Your task to perform on an android device: allow notifications from all sites in the chrome app Image 0: 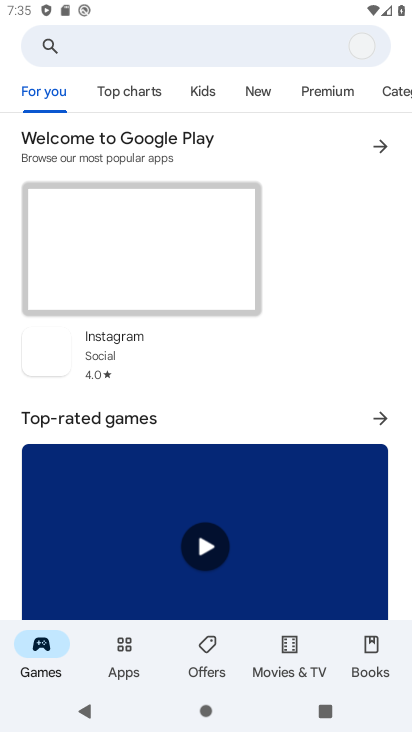
Step 0: press home button
Your task to perform on an android device: allow notifications from all sites in the chrome app Image 1: 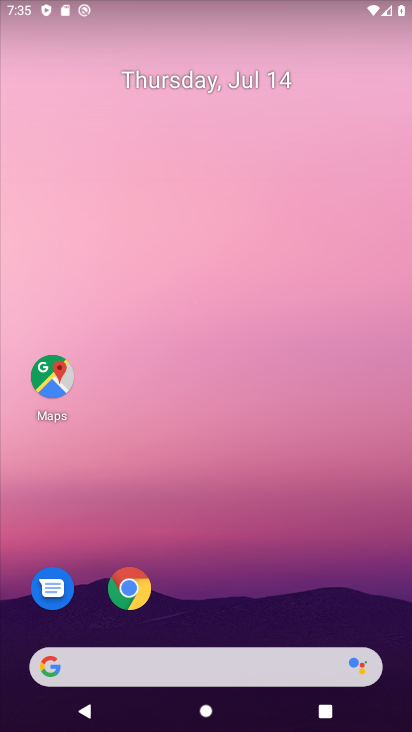
Step 1: drag from (335, 615) to (344, 171)
Your task to perform on an android device: allow notifications from all sites in the chrome app Image 2: 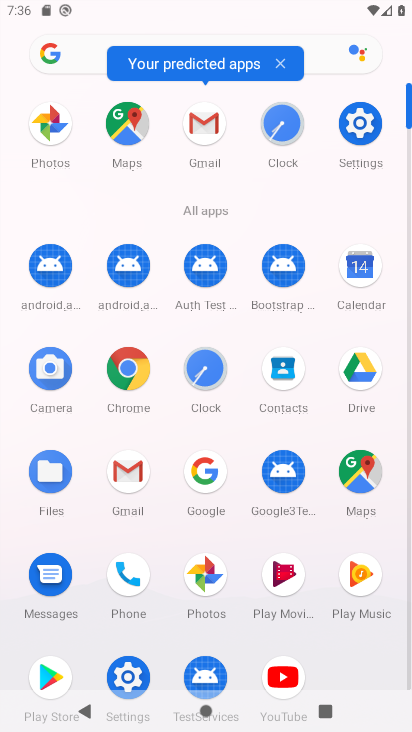
Step 2: click (134, 373)
Your task to perform on an android device: allow notifications from all sites in the chrome app Image 3: 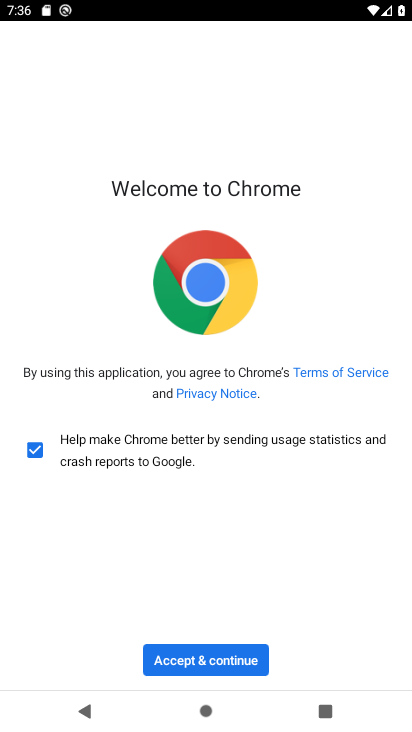
Step 3: click (180, 663)
Your task to perform on an android device: allow notifications from all sites in the chrome app Image 4: 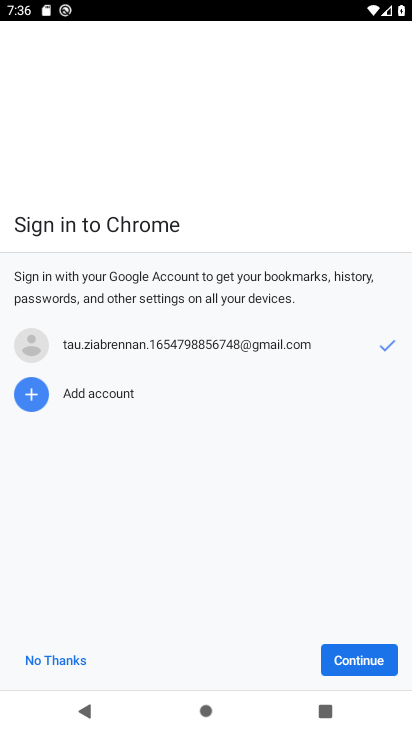
Step 4: click (342, 658)
Your task to perform on an android device: allow notifications from all sites in the chrome app Image 5: 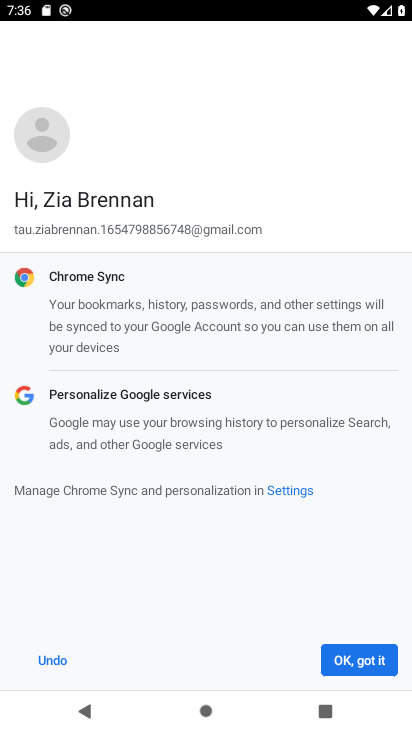
Step 5: click (342, 658)
Your task to perform on an android device: allow notifications from all sites in the chrome app Image 6: 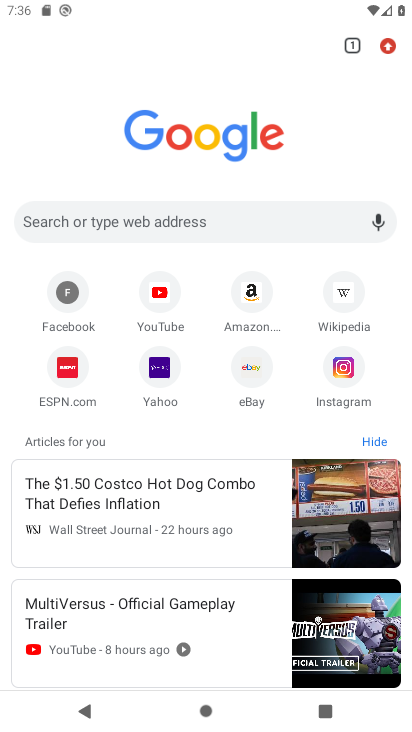
Step 6: click (389, 45)
Your task to perform on an android device: allow notifications from all sites in the chrome app Image 7: 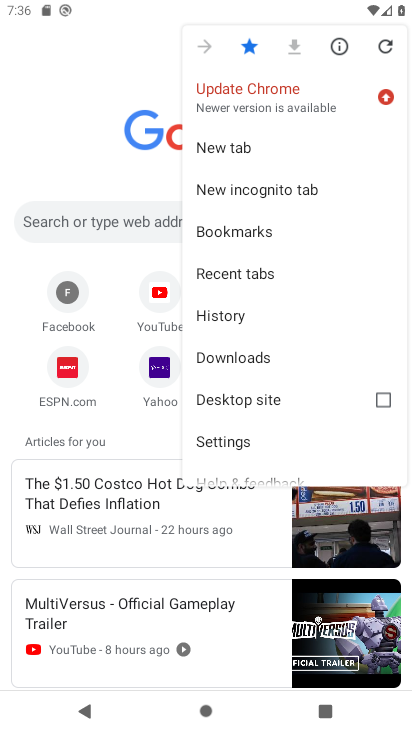
Step 7: click (251, 438)
Your task to perform on an android device: allow notifications from all sites in the chrome app Image 8: 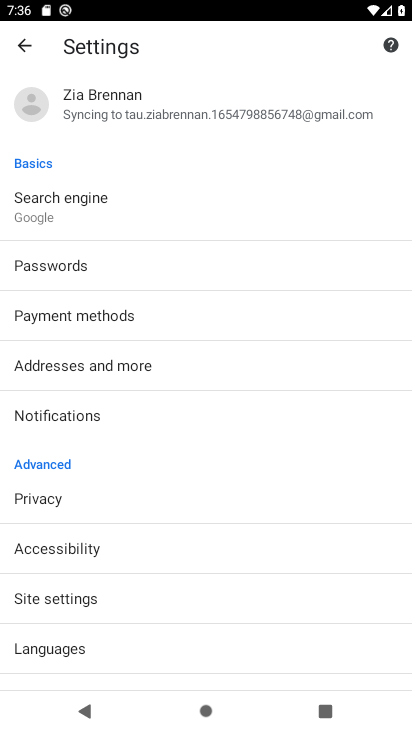
Step 8: drag from (338, 583) to (340, 498)
Your task to perform on an android device: allow notifications from all sites in the chrome app Image 9: 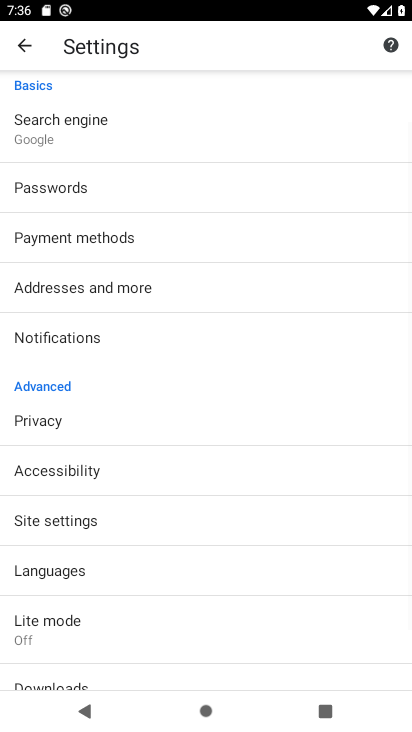
Step 9: drag from (351, 603) to (338, 422)
Your task to perform on an android device: allow notifications from all sites in the chrome app Image 10: 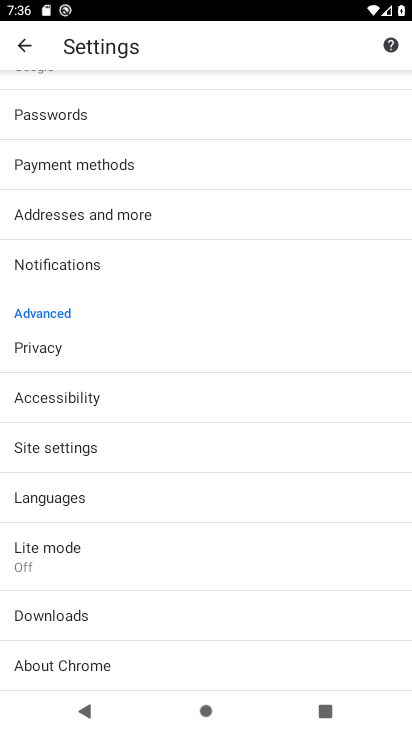
Step 10: click (321, 447)
Your task to perform on an android device: allow notifications from all sites in the chrome app Image 11: 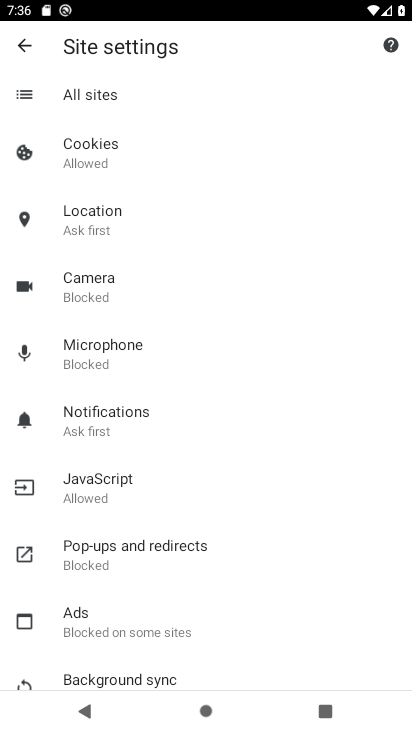
Step 11: drag from (326, 537) to (325, 431)
Your task to perform on an android device: allow notifications from all sites in the chrome app Image 12: 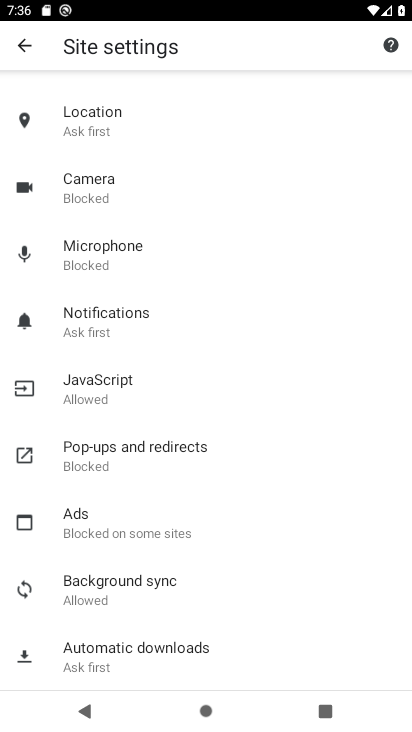
Step 12: drag from (326, 566) to (326, 399)
Your task to perform on an android device: allow notifications from all sites in the chrome app Image 13: 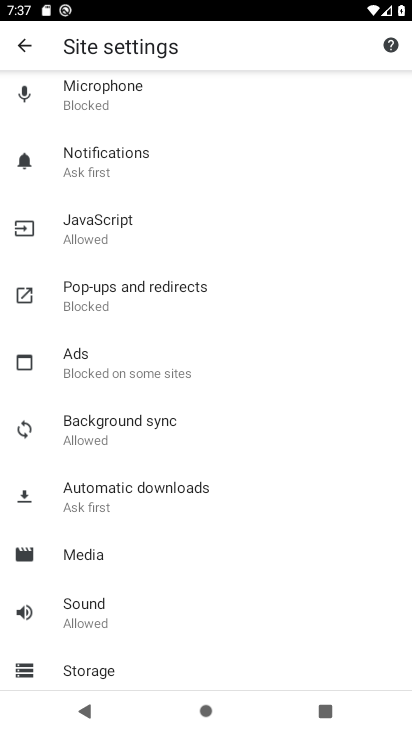
Step 13: click (173, 166)
Your task to perform on an android device: allow notifications from all sites in the chrome app Image 14: 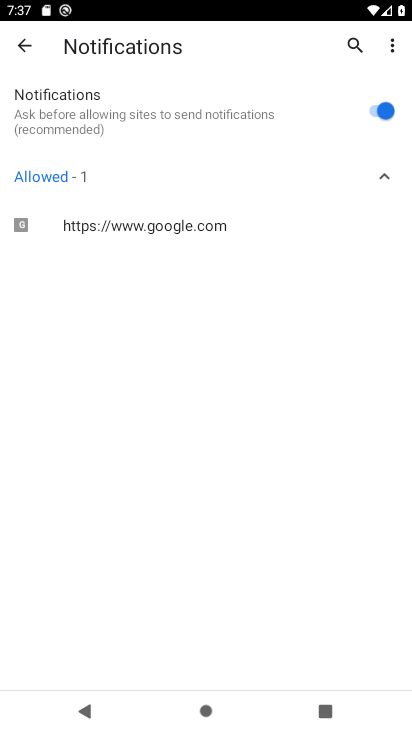
Step 14: task complete